Your task to perform on an android device: turn on sleep mode Image 0: 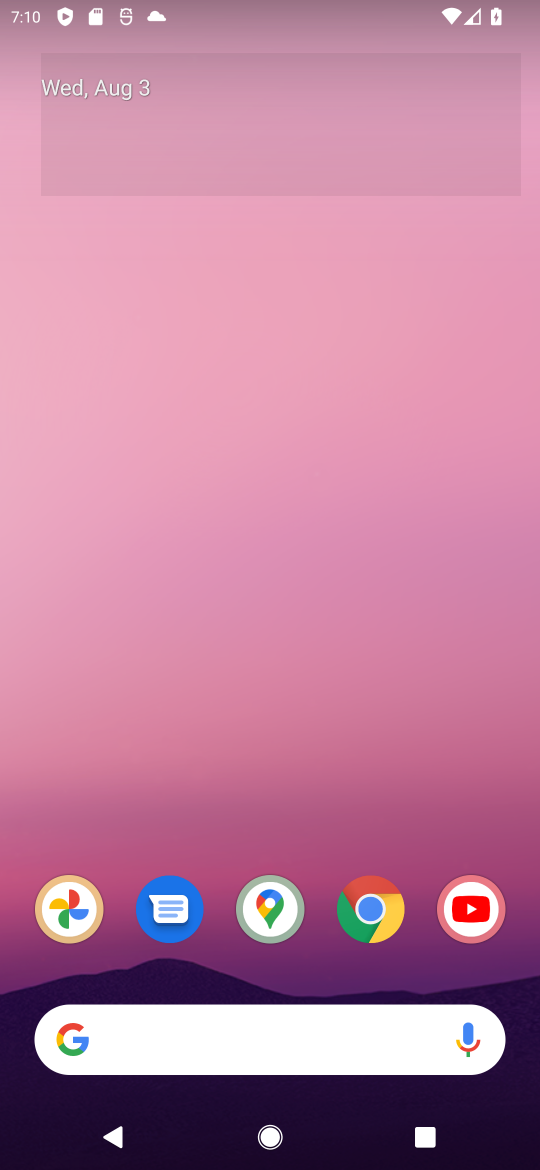
Step 0: press home button
Your task to perform on an android device: turn on sleep mode Image 1: 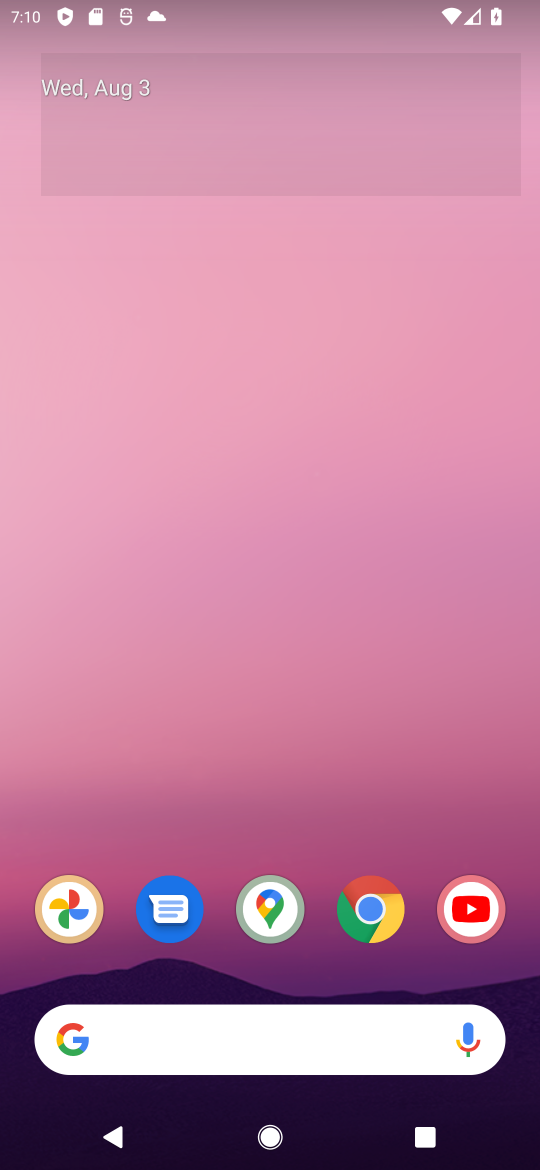
Step 1: drag from (306, 825) to (380, 123)
Your task to perform on an android device: turn on sleep mode Image 2: 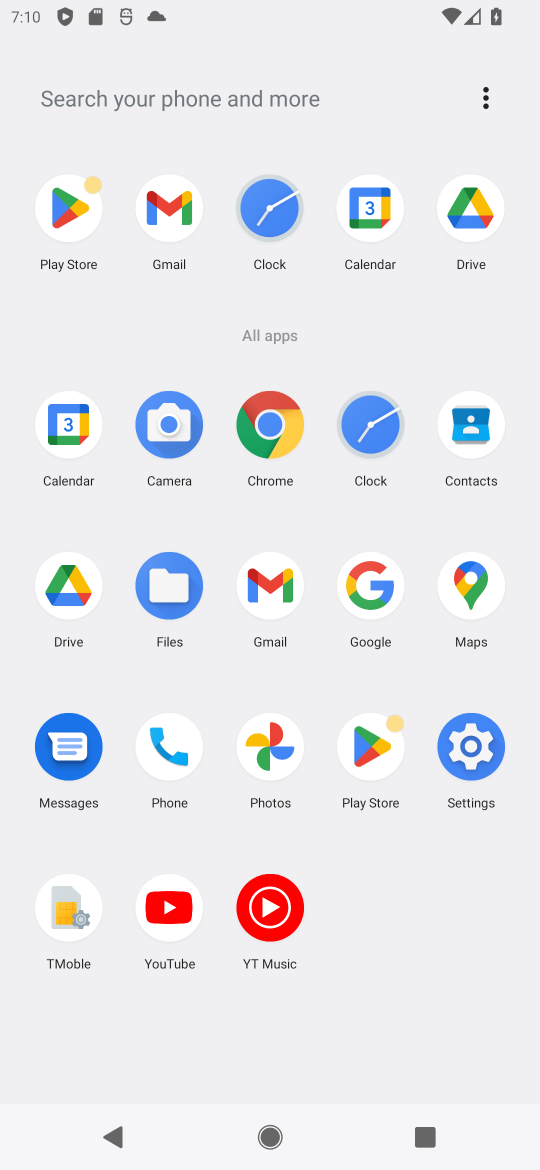
Step 2: click (474, 754)
Your task to perform on an android device: turn on sleep mode Image 3: 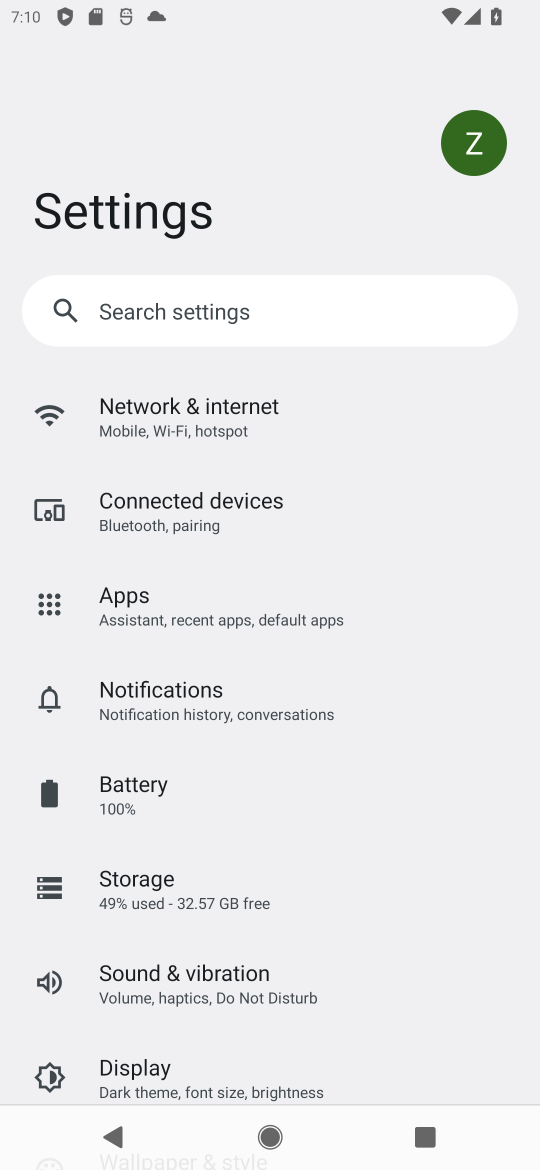
Step 3: drag from (397, 936) to (428, 711)
Your task to perform on an android device: turn on sleep mode Image 4: 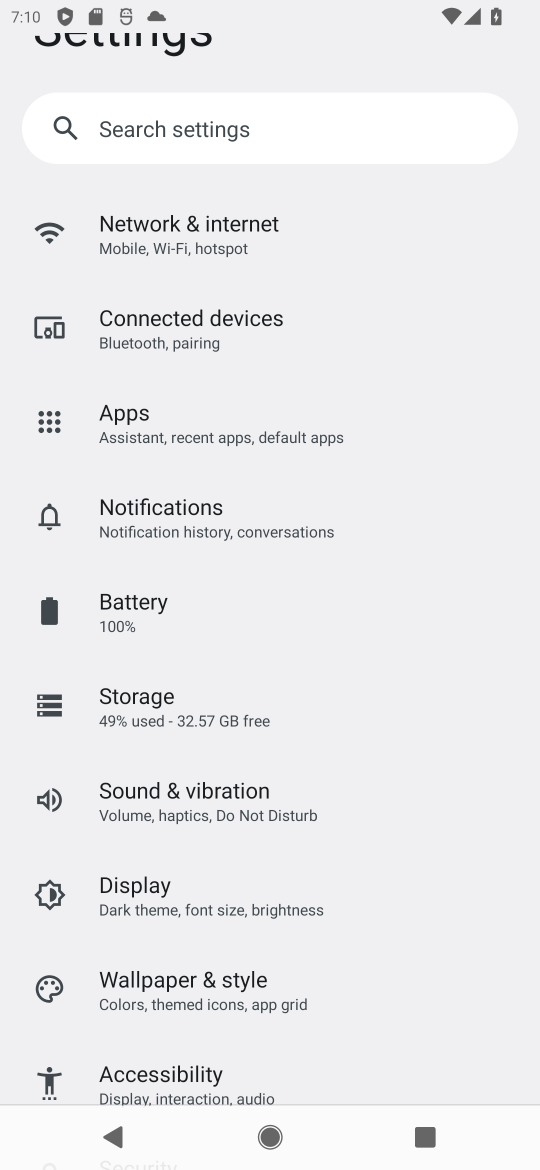
Step 4: drag from (444, 961) to (485, 744)
Your task to perform on an android device: turn on sleep mode Image 5: 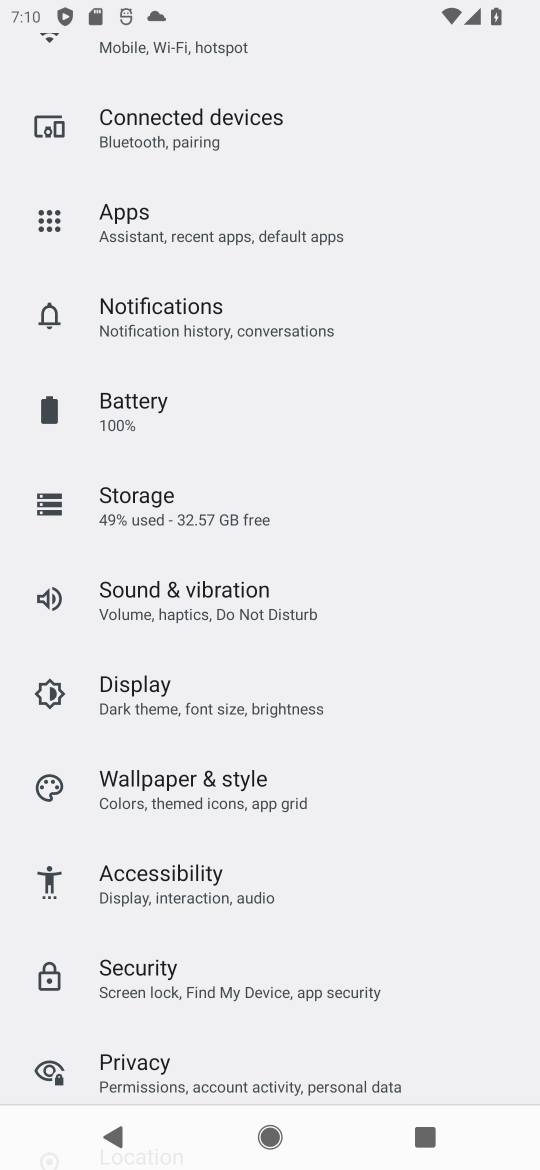
Step 5: drag from (456, 1016) to (469, 772)
Your task to perform on an android device: turn on sleep mode Image 6: 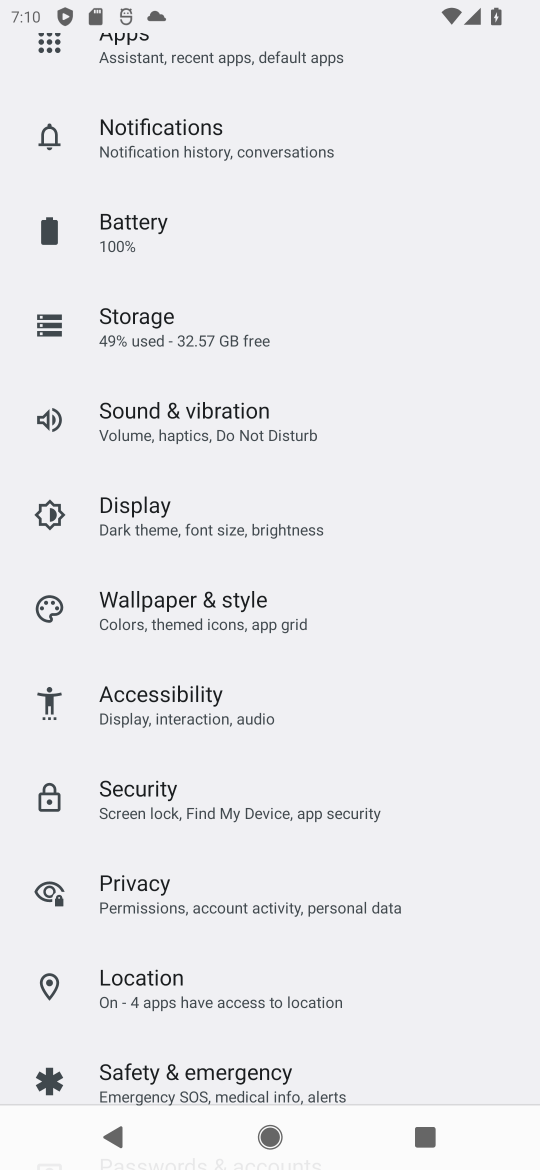
Step 6: drag from (431, 999) to (432, 748)
Your task to perform on an android device: turn on sleep mode Image 7: 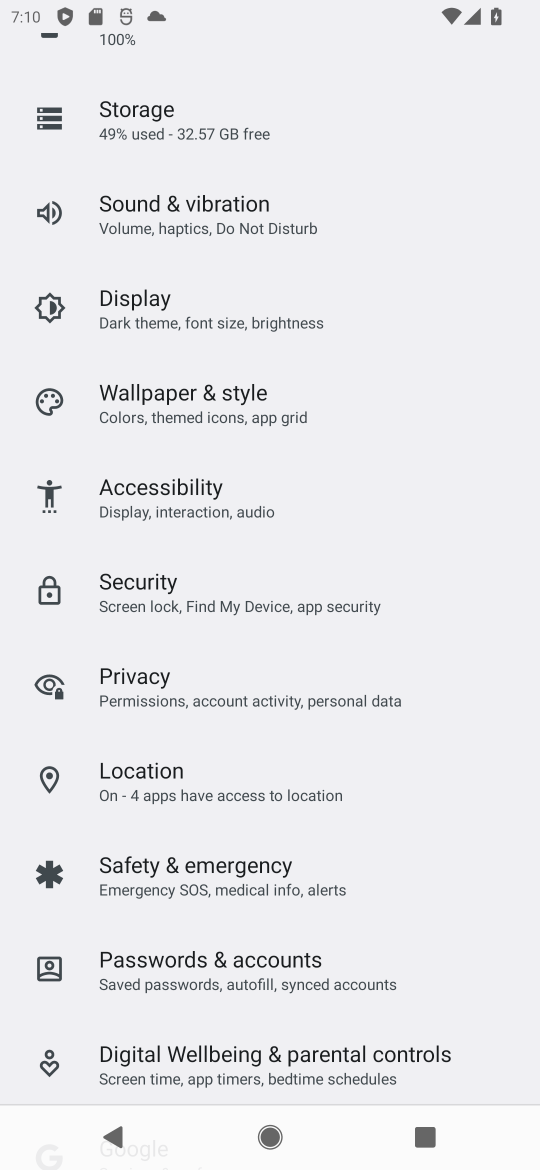
Step 7: drag from (455, 990) to (459, 594)
Your task to perform on an android device: turn on sleep mode Image 8: 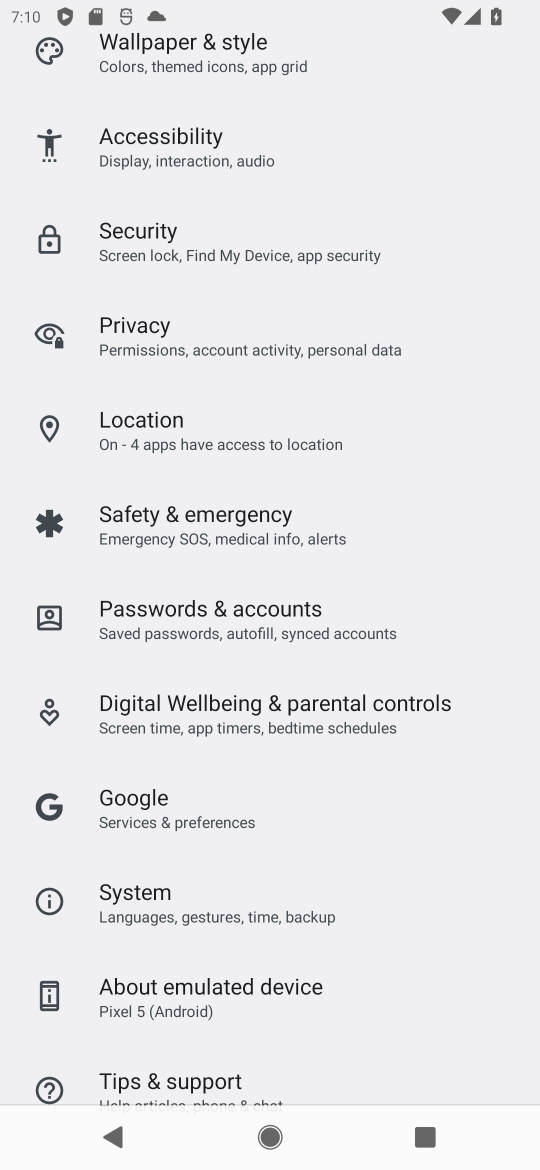
Step 8: drag from (452, 957) to (473, 612)
Your task to perform on an android device: turn on sleep mode Image 9: 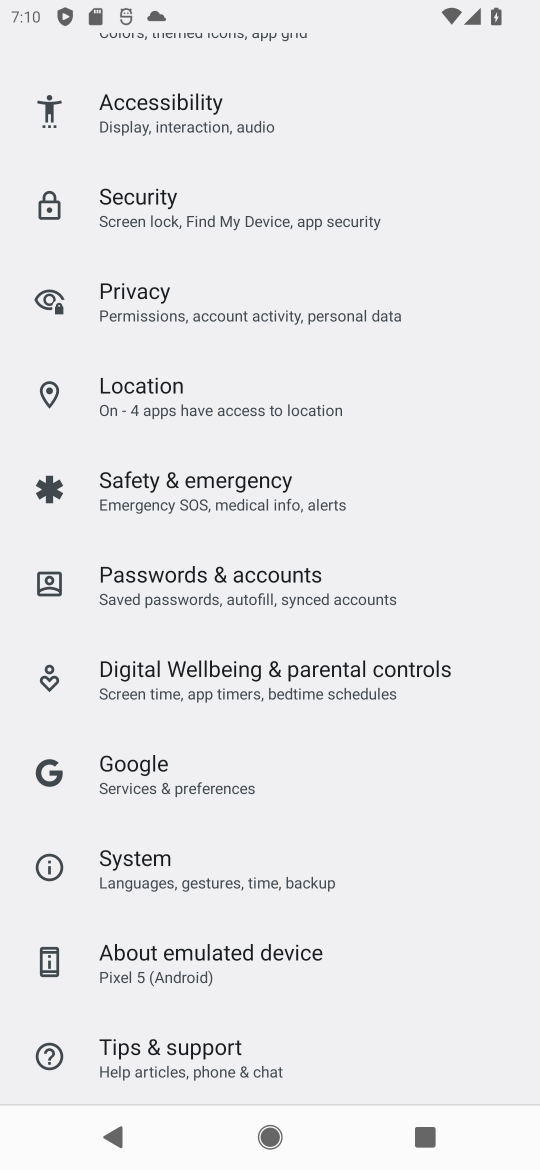
Step 9: drag from (473, 402) to (470, 734)
Your task to perform on an android device: turn on sleep mode Image 10: 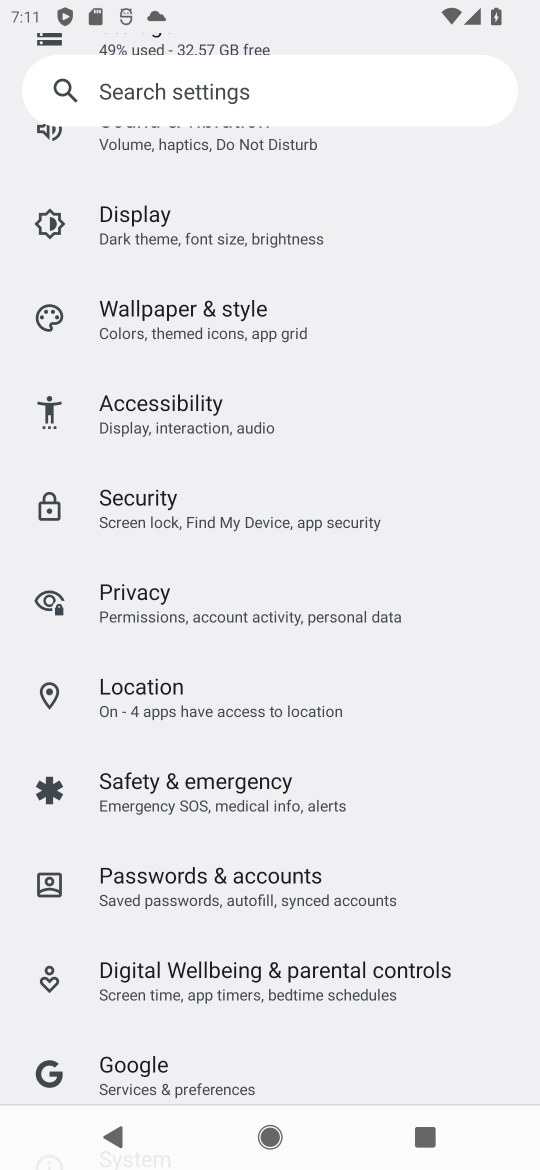
Step 10: drag from (415, 383) to (431, 695)
Your task to perform on an android device: turn on sleep mode Image 11: 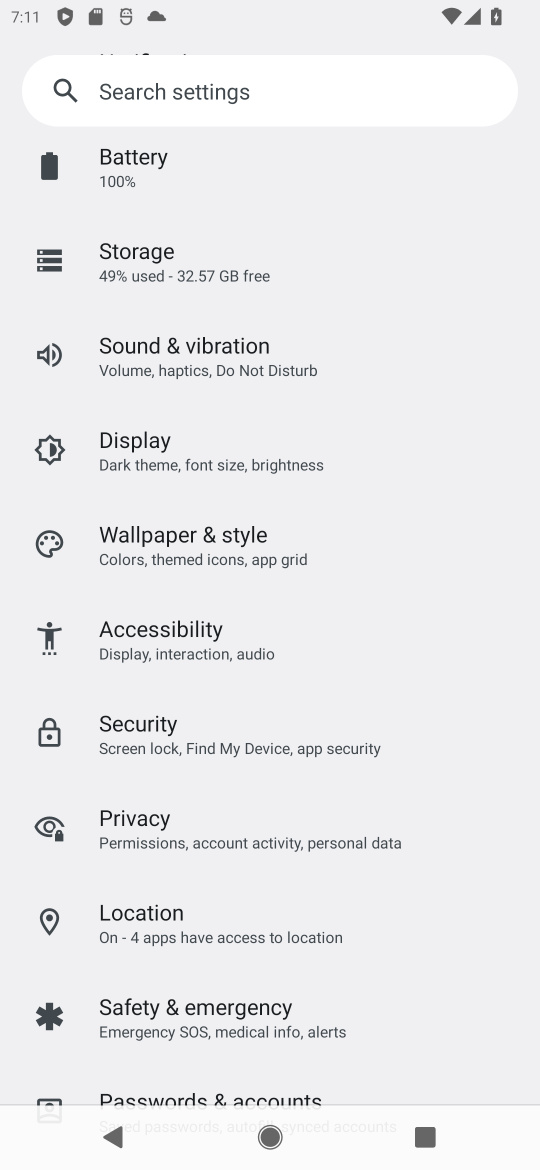
Step 11: click (316, 447)
Your task to perform on an android device: turn on sleep mode Image 12: 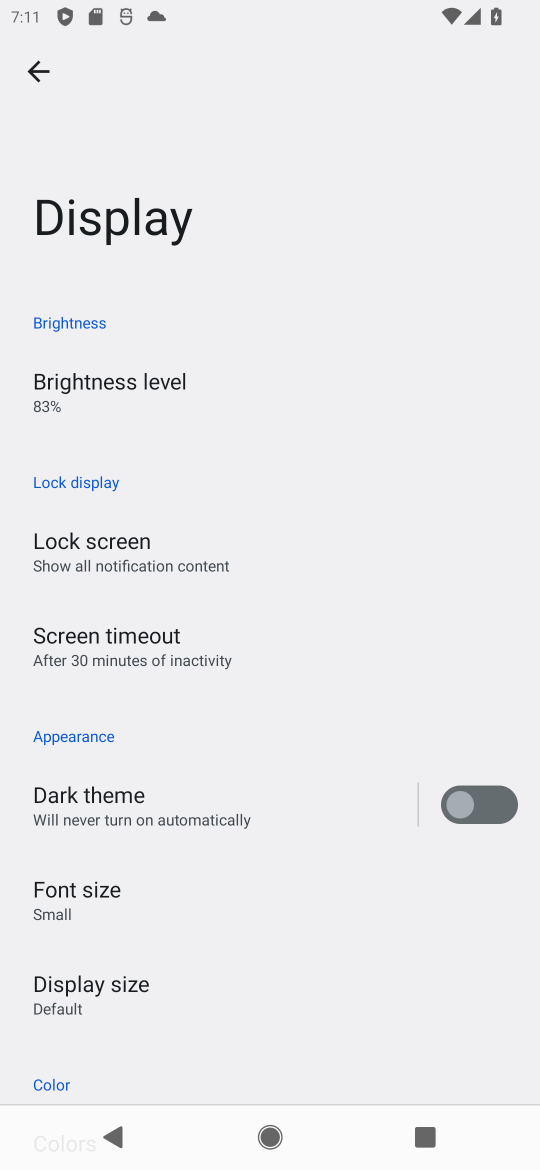
Step 12: task complete